Your task to perform on an android device: turn off wifi Image 0: 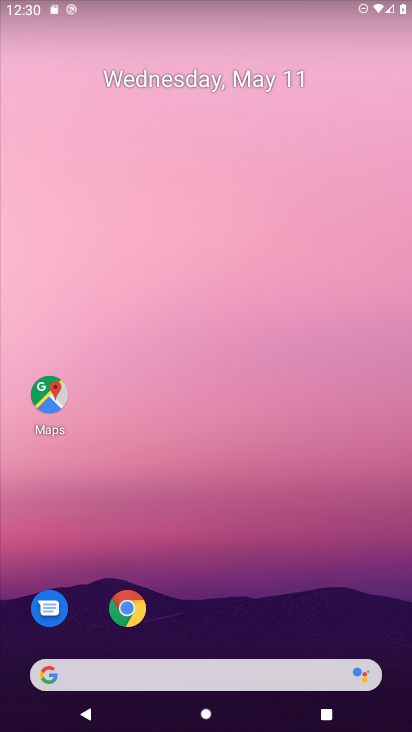
Step 0: drag from (320, 551) to (294, 78)
Your task to perform on an android device: turn off wifi Image 1: 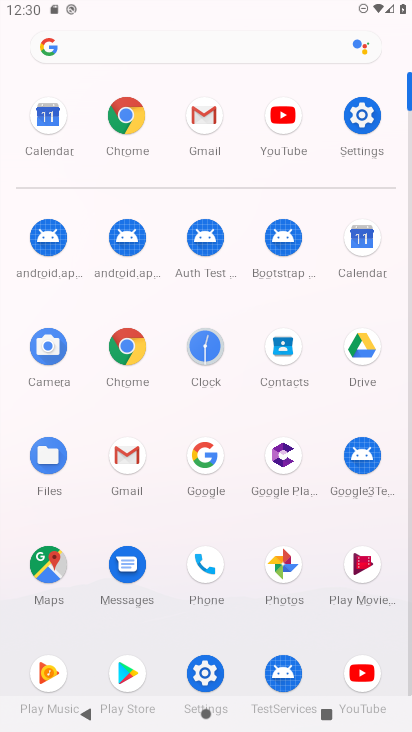
Step 1: click (358, 114)
Your task to perform on an android device: turn off wifi Image 2: 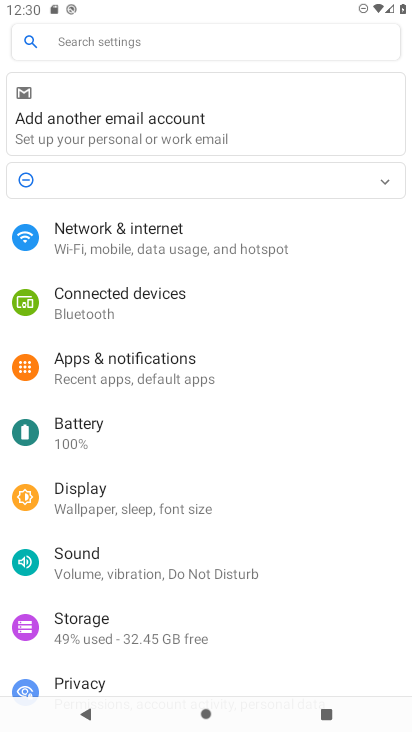
Step 2: click (268, 244)
Your task to perform on an android device: turn off wifi Image 3: 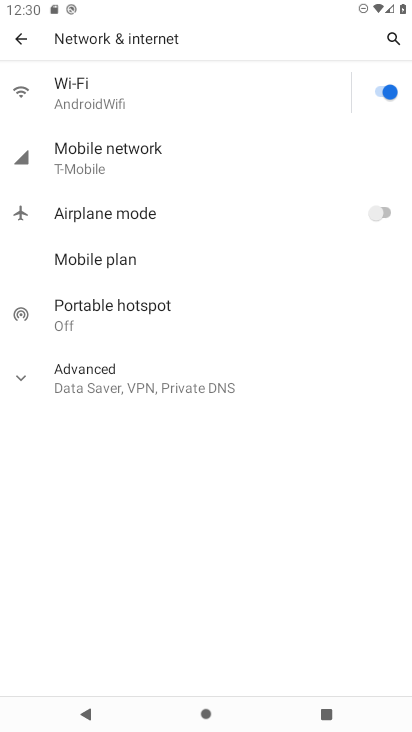
Step 3: click (378, 88)
Your task to perform on an android device: turn off wifi Image 4: 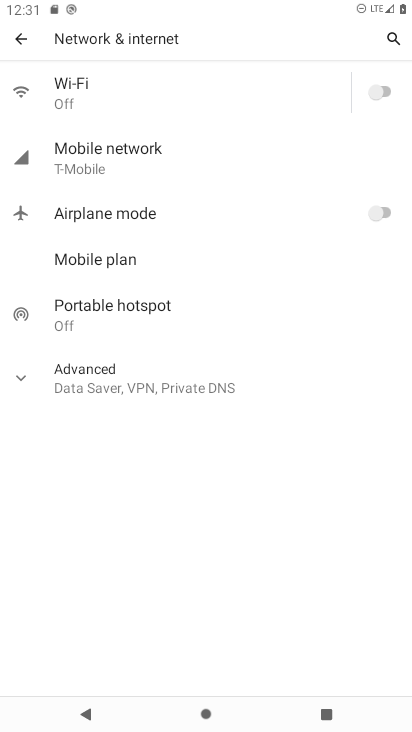
Step 4: task complete